Your task to perform on an android device: Is it going to rain this weekend? Image 0: 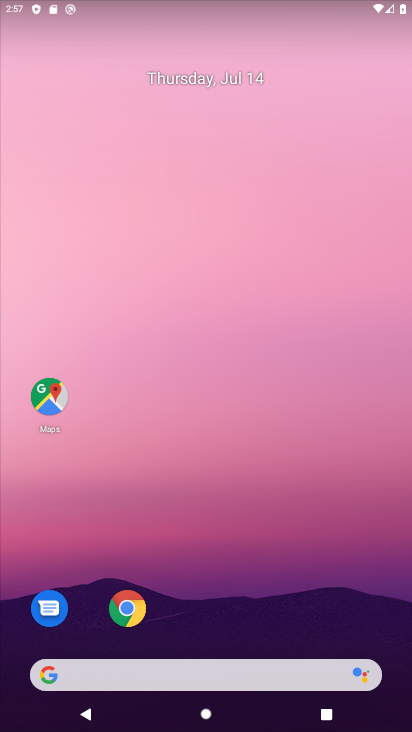
Step 0: click (198, 664)
Your task to perform on an android device: Is it going to rain this weekend? Image 1: 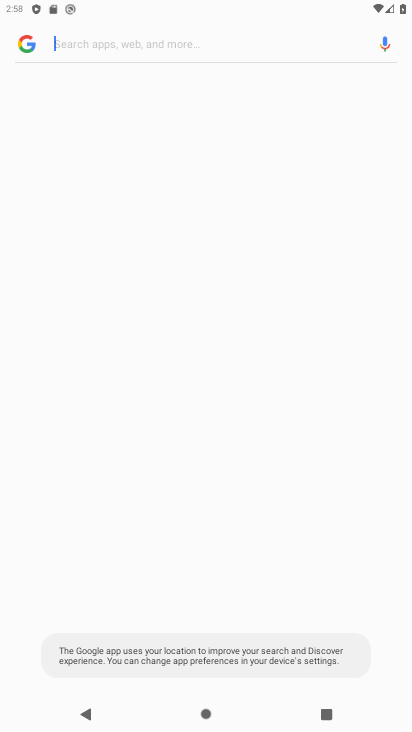
Step 1: click (214, 664)
Your task to perform on an android device: Is it going to rain this weekend? Image 2: 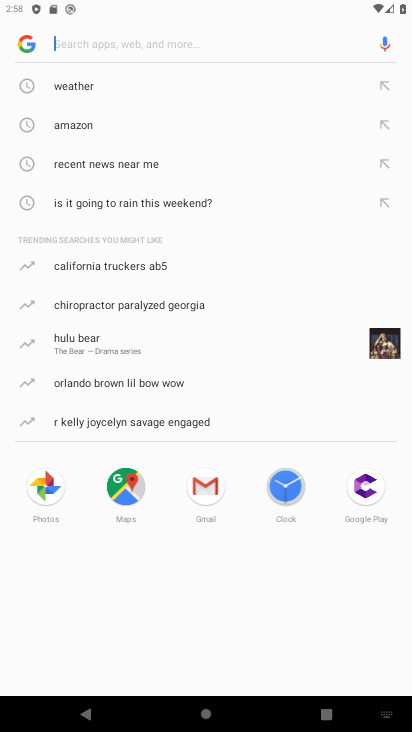
Step 2: click (72, 73)
Your task to perform on an android device: Is it going to rain this weekend? Image 3: 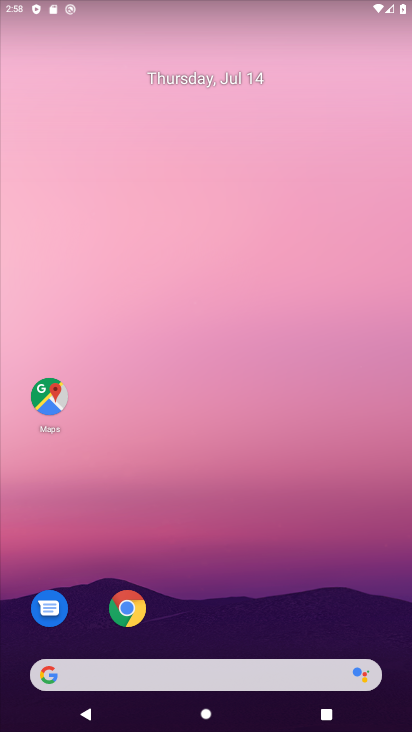
Step 3: click (181, 662)
Your task to perform on an android device: Is it going to rain this weekend? Image 4: 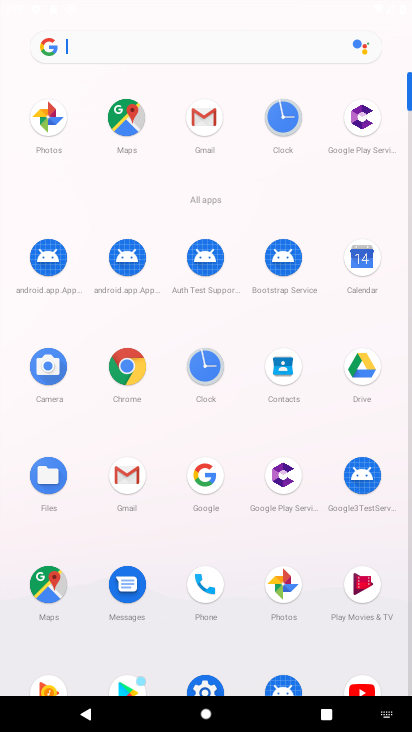
Step 4: click (209, 481)
Your task to perform on an android device: Is it going to rain this weekend? Image 5: 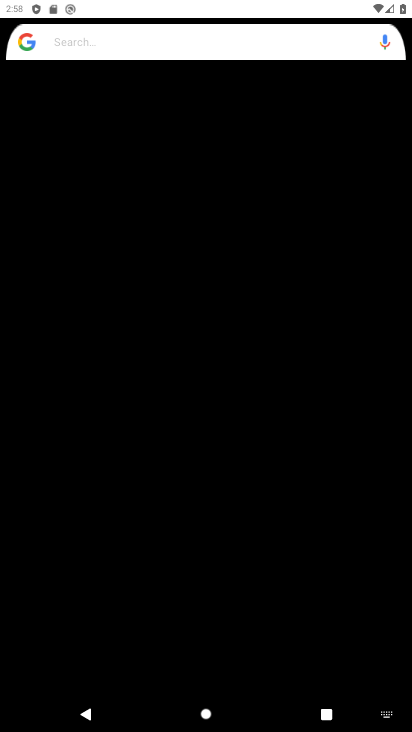
Step 5: click (130, 49)
Your task to perform on an android device: Is it going to rain this weekend? Image 6: 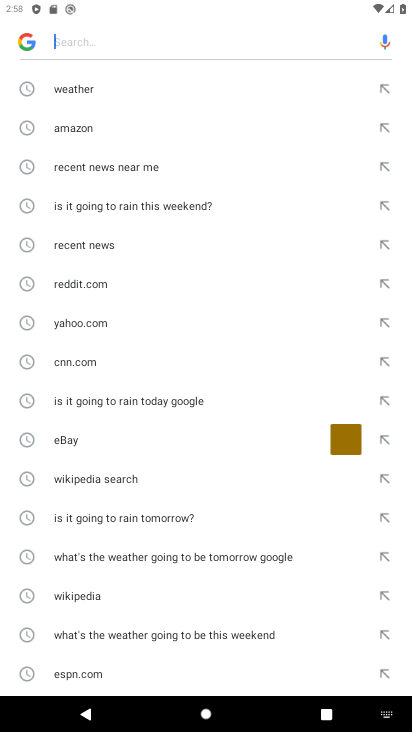
Step 6: click (75, 44)
Your task to perform on an android device: Is it going to rain this weekend? Image 7: 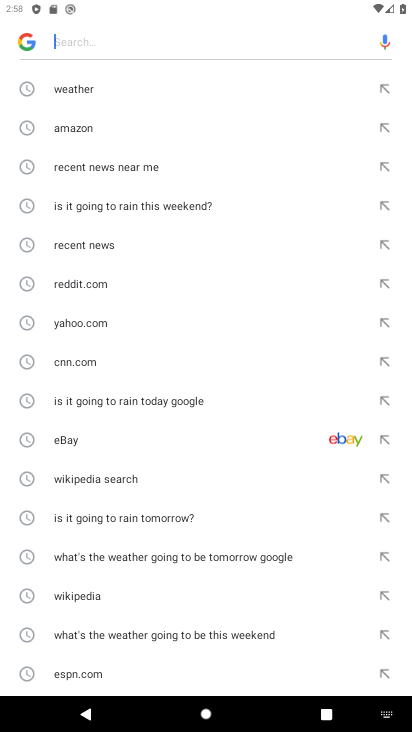
Step 7: click (78, 84)
Your task to perform on an android device: Is it going to rain this weekend? Image 8: 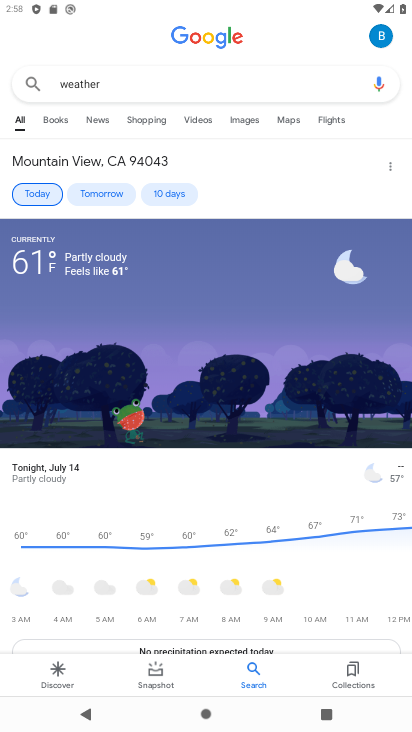
Step 8: task complete